Your task to perform on an android device: turn on improve location accuracy Image 0: 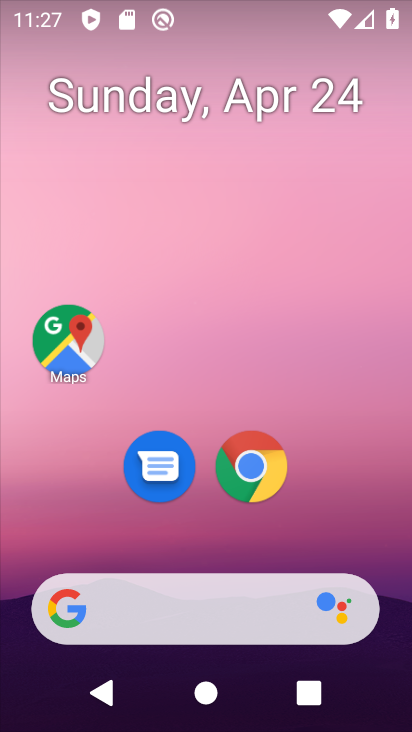
Step 0: drag from (364, 521) to (300, 6)
Your task to perform on an android device: turn on improve location accuracy Image 1: 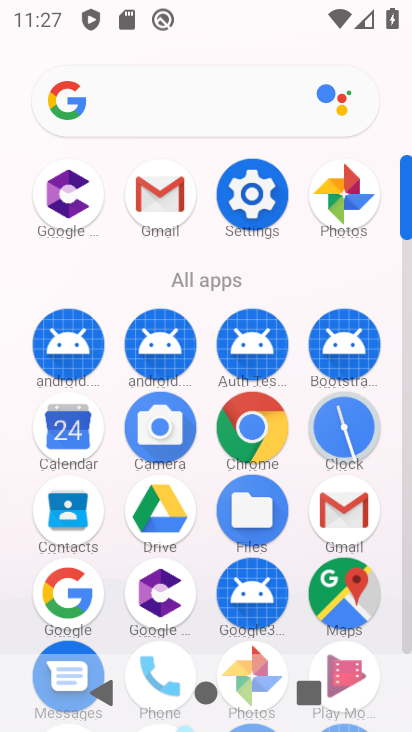
Step 1: click (251, 177)
Your task to perform on an android device: turn on improve location accuracy Image 2: 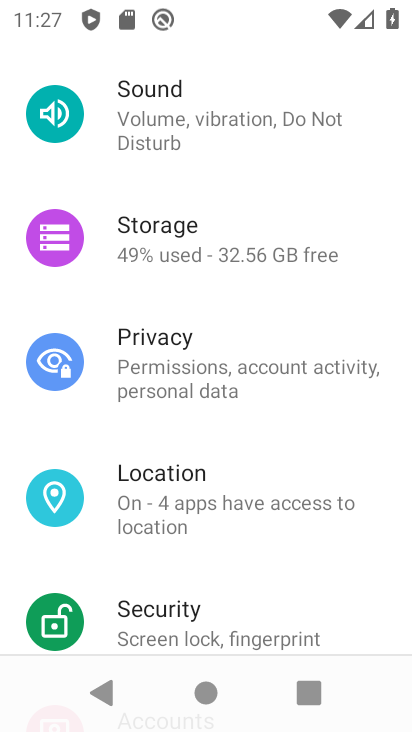
Step 2: drag from (199, 558) to (165, 160)
Your task to perform on an android device: turn on improve location accuracy Image 3: 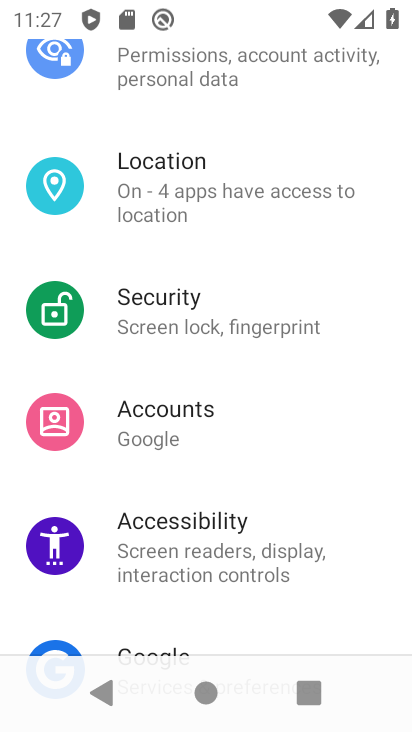
Step 3: drag from (194, 514) to (177, 292)
Your task to perform on an android device: turn on improve location accuracy Image 4: 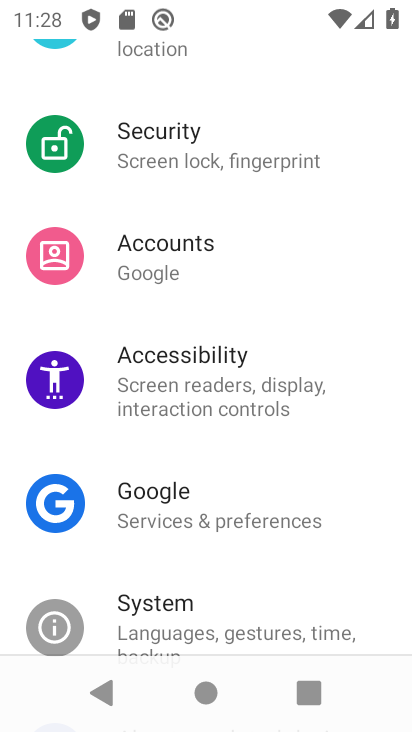
Step 4: drag from (200, 623) to (195, 268)
Your task to perform on an android device: turn on improve location accuracy Image 5: 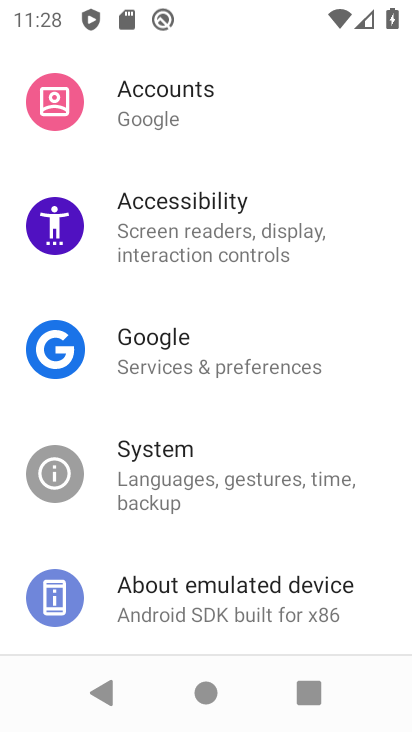
Step 5: drag from (172, 601) to (165, 656)
Your task to perform on an android device: turn on improve location accuracy Image 6: 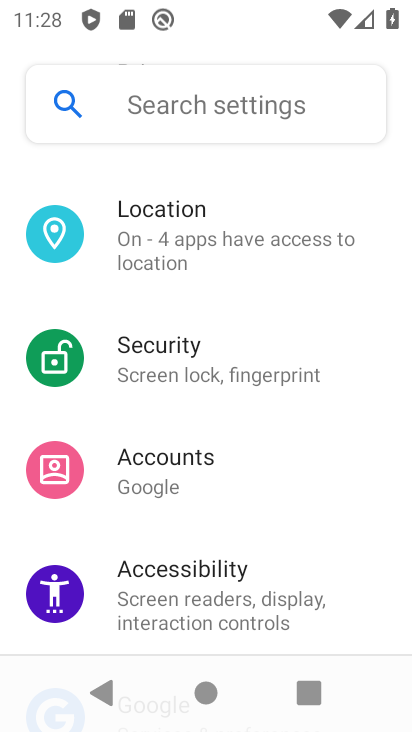
Step 6: drag from (171, 313) to (153, 505)
Your task to perform on an android device: turn on improve location accuracy Image 7: 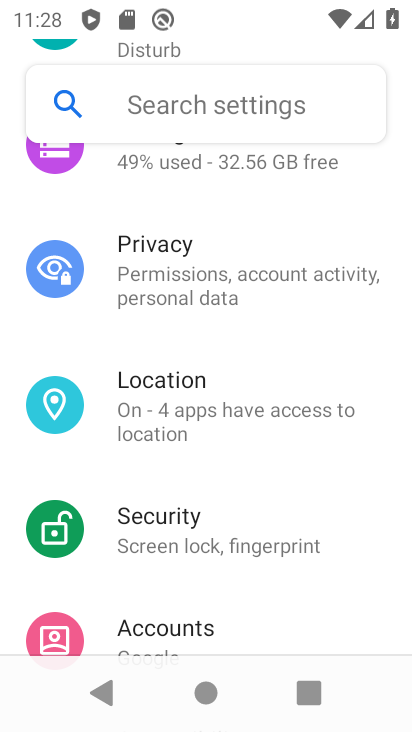
Step 7: click (183, 414)
Your task to perform on an android device: turn on improve location accuracy Image 8: 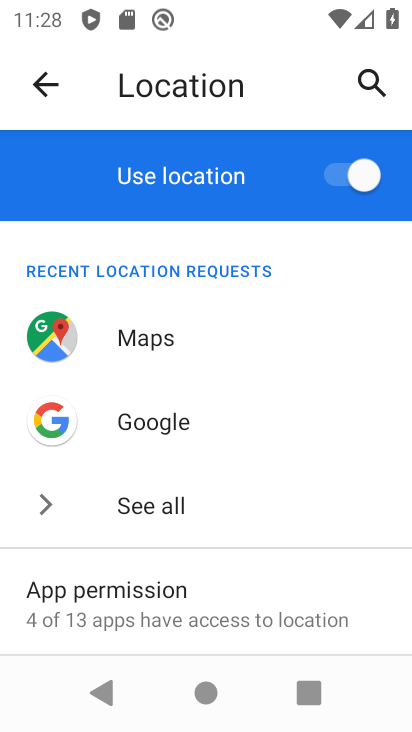
Step 8: drag from (203, 597) to (175, 273)
Your task to perform on an android device: turn on improve location accuracy Image 9: 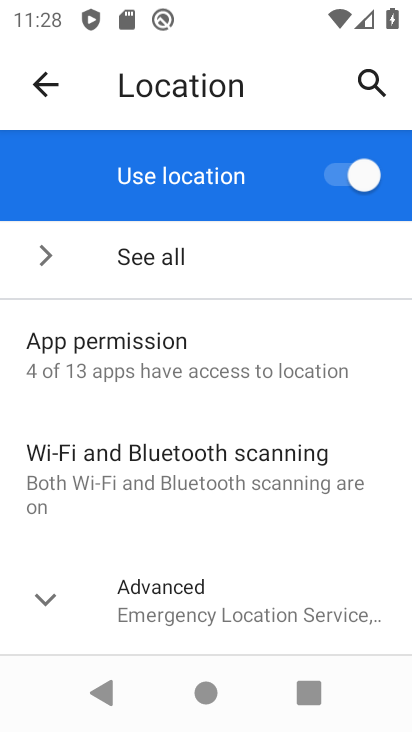
Step 9: click (184, 593)
Your task to perform on an android device: turn on improve location accuracy Image 10: 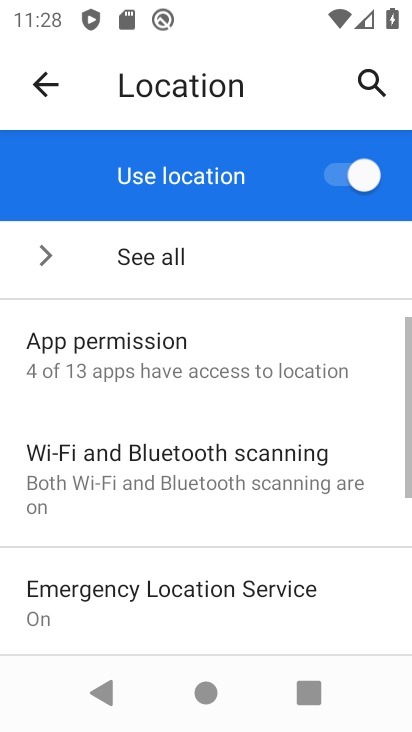
Step 10: drag from (263, 581) to (169, 210)
Your task to perform on an android device: turn on improve location accuracy Image 11: 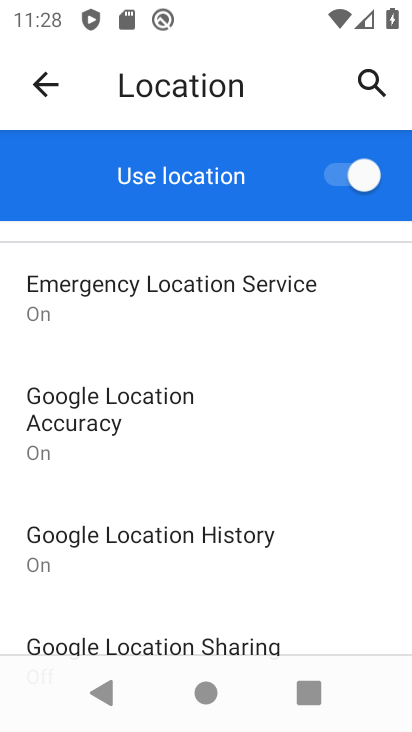
Step 11: click (110, 406)
Your task to perform on an android device: turn on improve location accuracy Image 12: 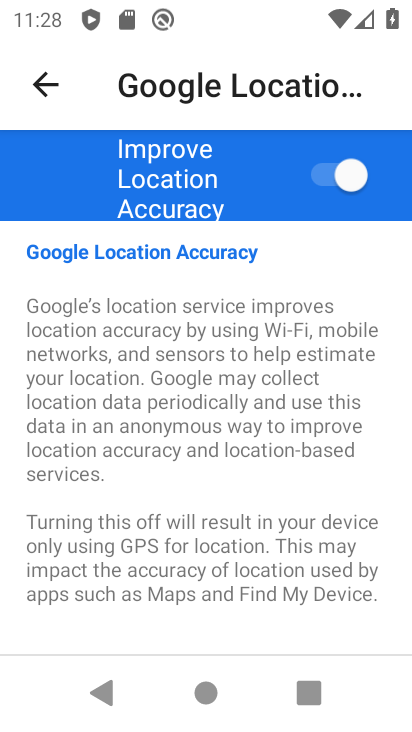
Step 12: task complete